Your task to perform on an android device: Open Google Maps Image 0: 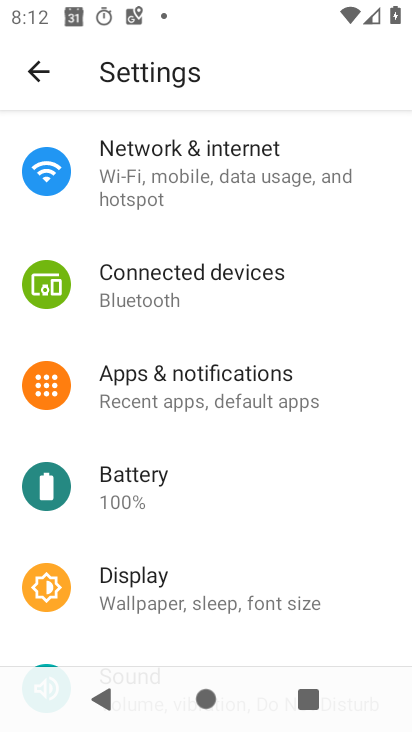
Step 0: press home button
Your task to perform on an android device: Open Google Maps Image 1: 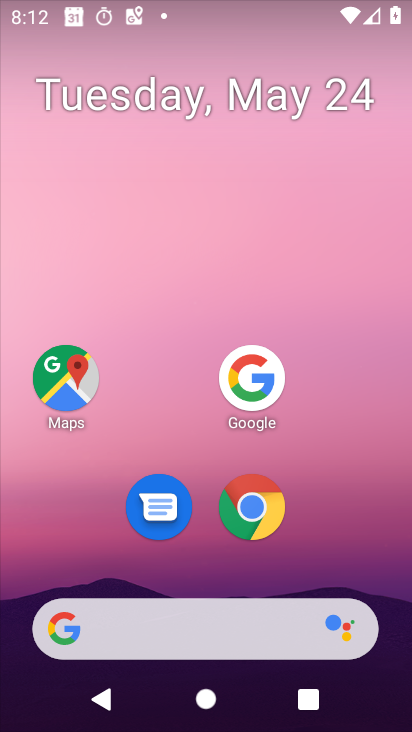
Step 1: click (67, 383)
Your task to perform on an android device: Open Google Maps Image 2: 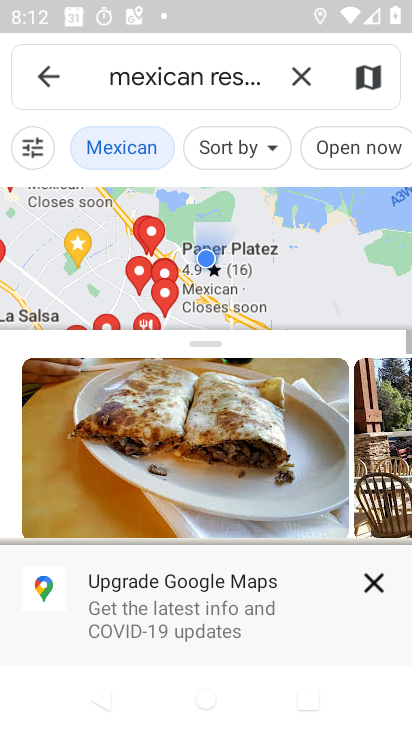
Step 2: click (50, 72)
Your task to perform on an android device: Open Google Maps Image 3: 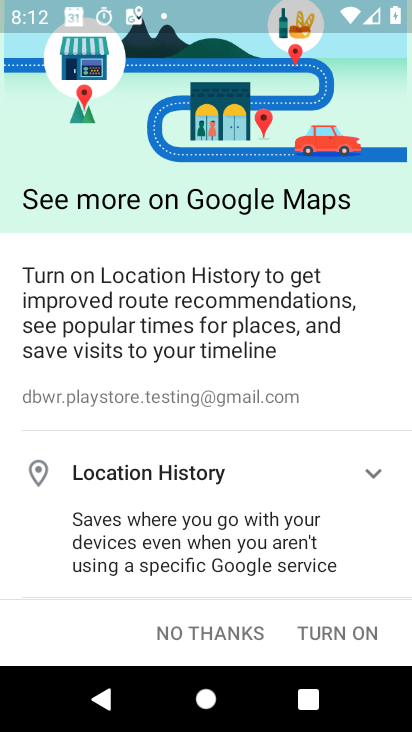
Step 3: click (247, 636)
Your task to perform on an android device: Open Google Maps Image 4: 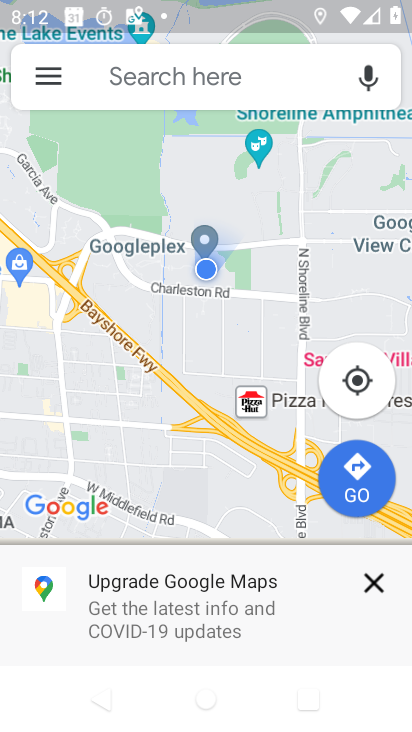
Step 4: task complete